Your task to perform on an android device: create a new album in the google photos Image 0: 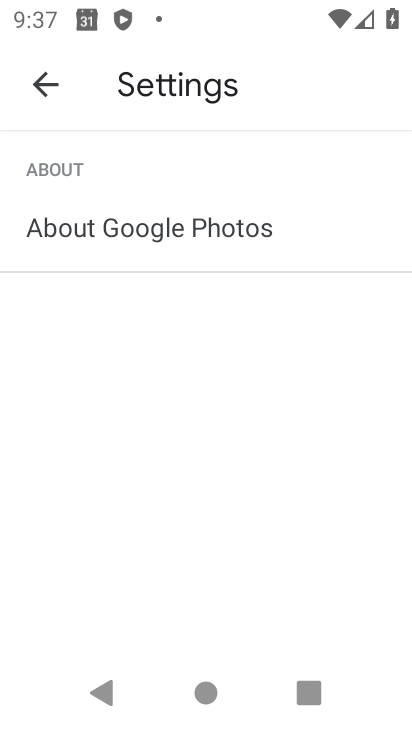
Step 0: press home button
Your task to perform on an android device: create a new album in the google photos Image 1: 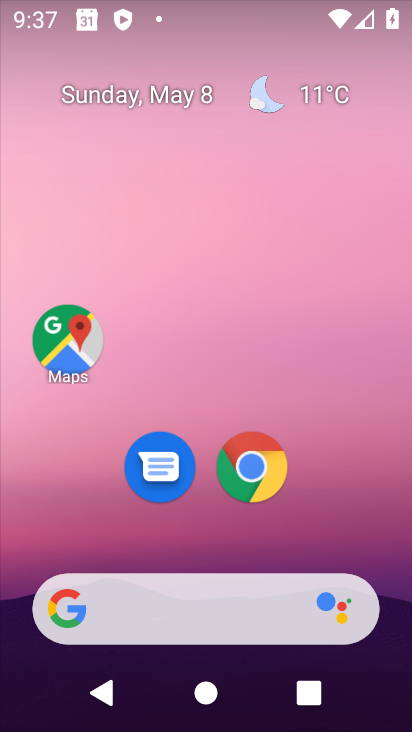
Step 1: drag from (10, 715) to (245, 158)
Your task to perform on an android device: create a new album in the google photos Image 2: 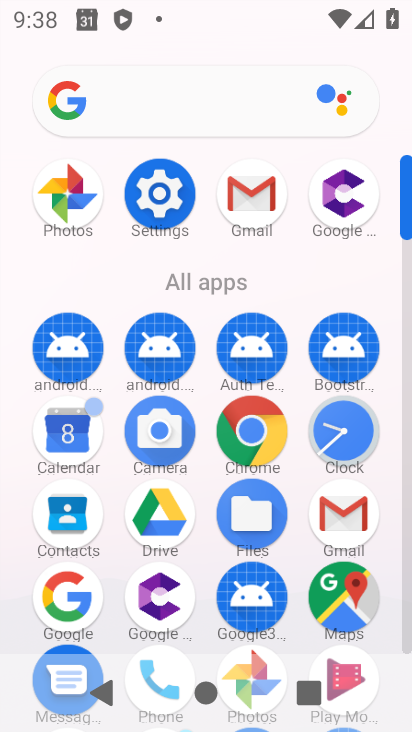
Step 2: drag from (152, 605) to (365, 223)
Your task to perform on an android device: create a new album in the google photos Image 3: 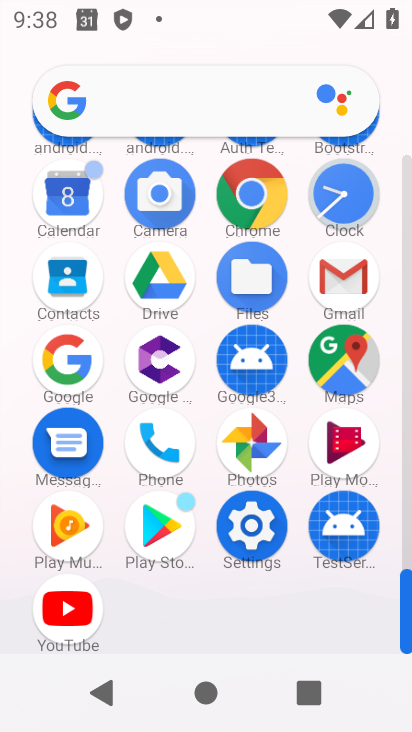
Step 3: click (242, 433)
Your task to perform on an android device: create a new album in the google photos Image 4: 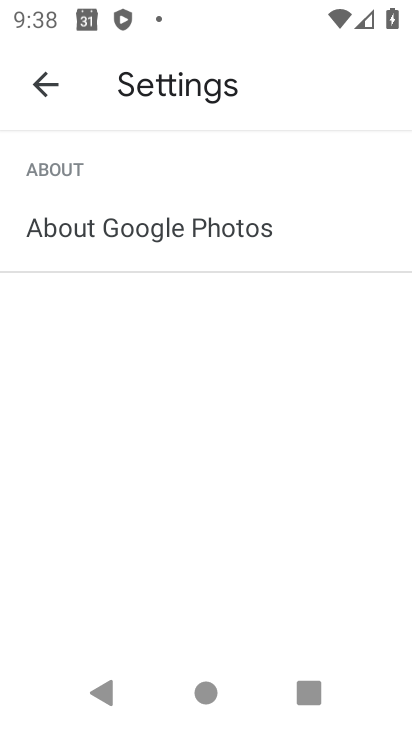
Step 4: press back button
Your task to perform on an android device: create a new album in the google photos Image 5: 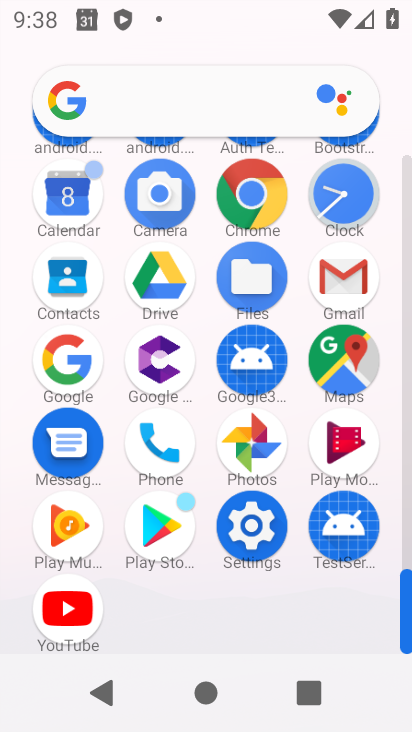
Step 5: click (265, 448)
Your task to perform on an android device: create a new album in the google photos Image 6: 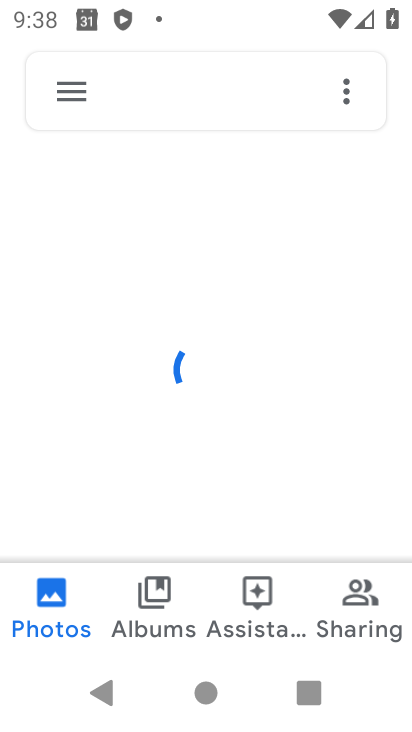
Step 6: click (346, 88)
Your task to perform on an android device: create a new album in the google photos Image 7: 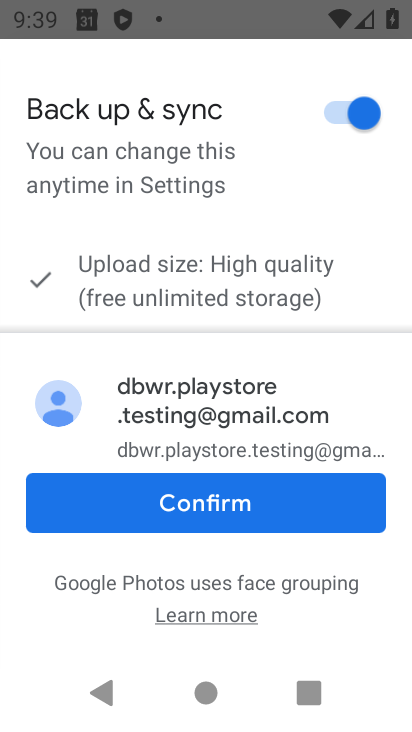
Step 7: click (268, 511)
Your task to perform on an android device: create a new album in the google photos Image 8: 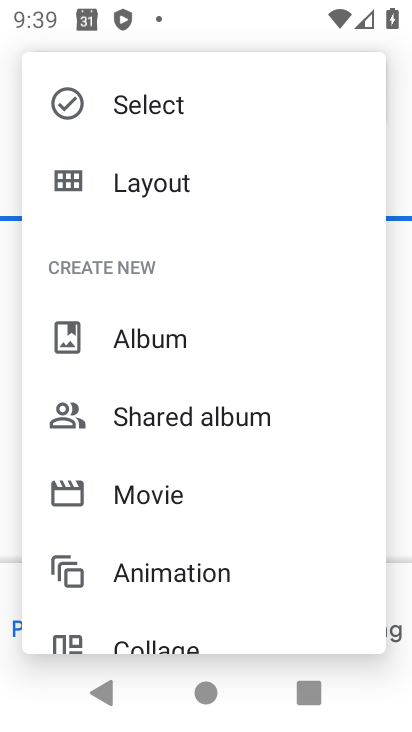
Step 8: click (169, 323)
Your task to perform on an android device: create a new album in the google photos Image 9: 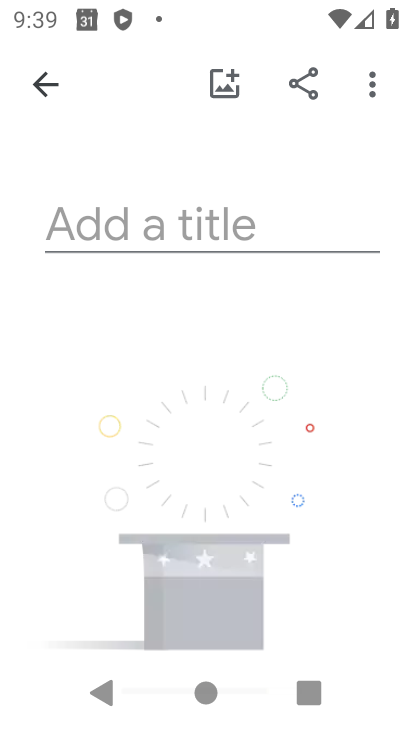
Step 9: click (248, 233)
Your task to perform on an android device: create a new album in the google photos Image 10: 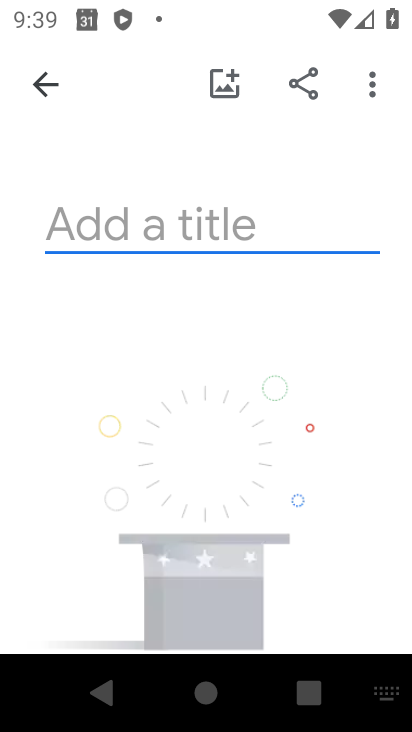
Step 10: type "ggjjgj"
Your task to perform on an android device: create a new album in the google photos Image 11: 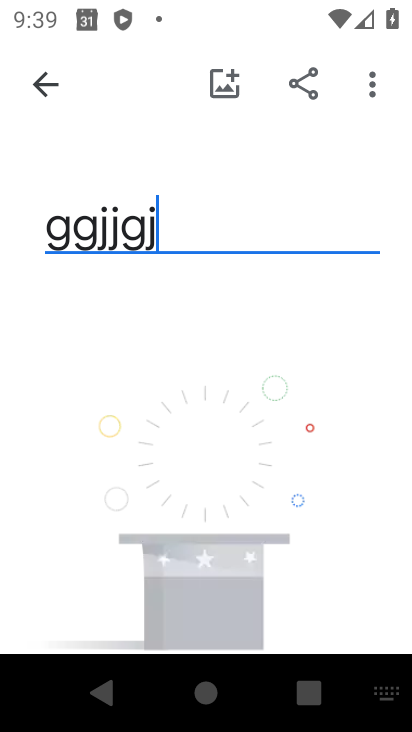
Step 11: type ""
Your task to perform on an android device: create a new album in the google photos Image 12: 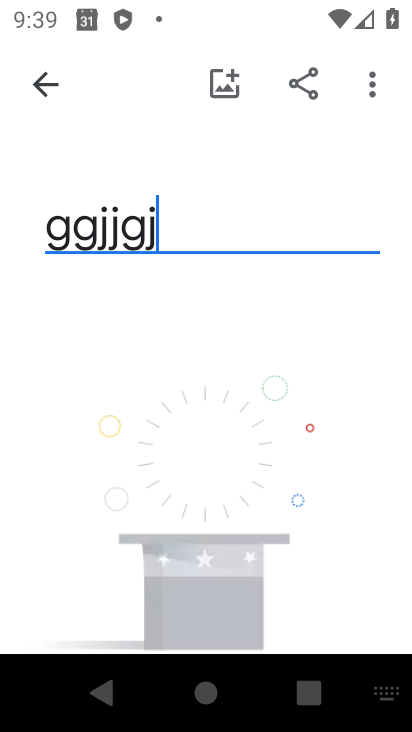
Step 12: drag from (208, 492) to (260, 155)
Your task to perform on an android device: create a new album in the google photos Image 13: 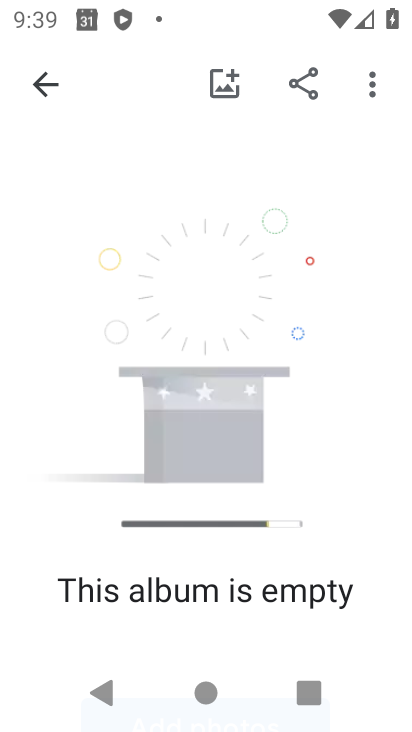
Step 13: drag from (248, 155) to (221, 554)
Your task to perform on an android device: create a new album in the google photos Image 14: 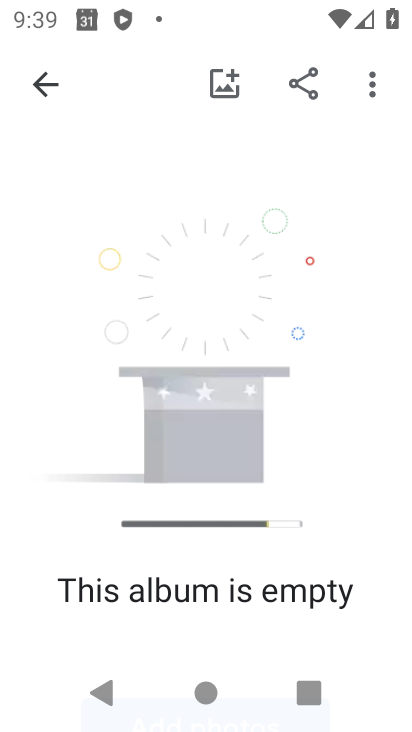
Step 14: drag from (160, 178) to (220, 561)
Your task to perform on an android device: create a new album in the google photos Image 15: 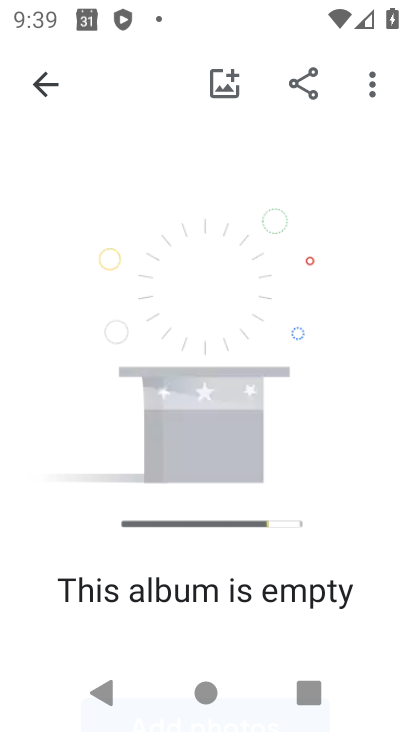
Step 15: click (229, 73)
Your task to perform on an android device: create a new album in the google photos Image 16: 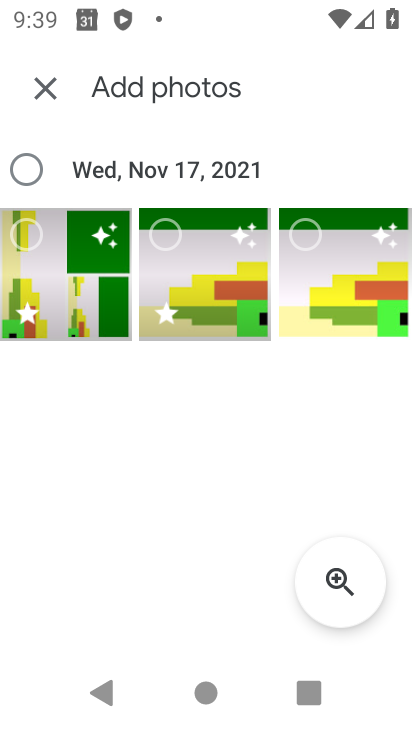
Step 16: click (306, 224)
Your task to perform on an android device: create a new album in the google photos Image 17: 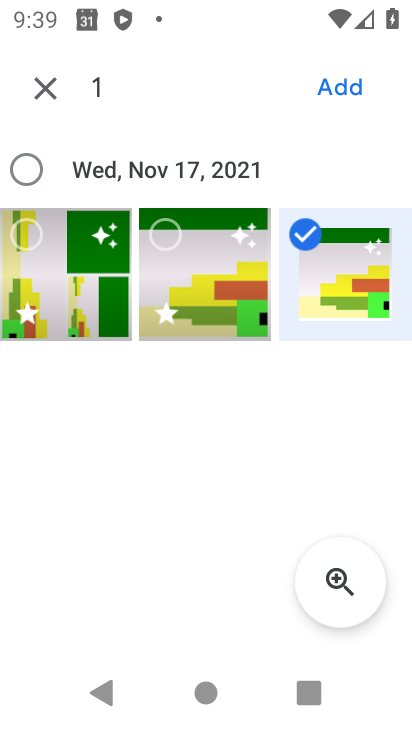
Step 17: click (348, 77)
Your task to perform on an android device: create a new album in the google photos Image 18: 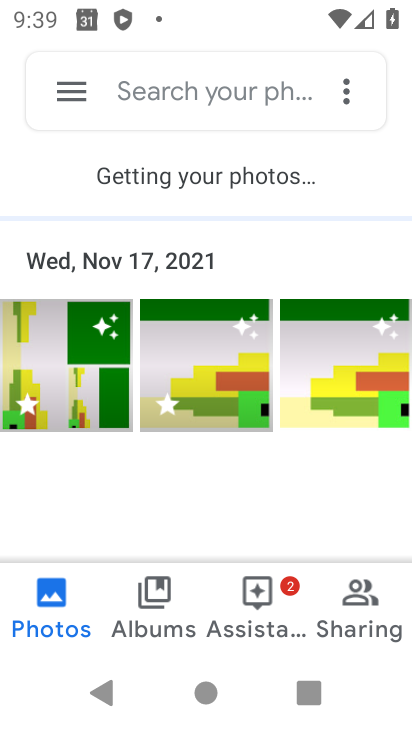
Step 18: task complete